Your task to perform on an android device: check google app version Image 0: 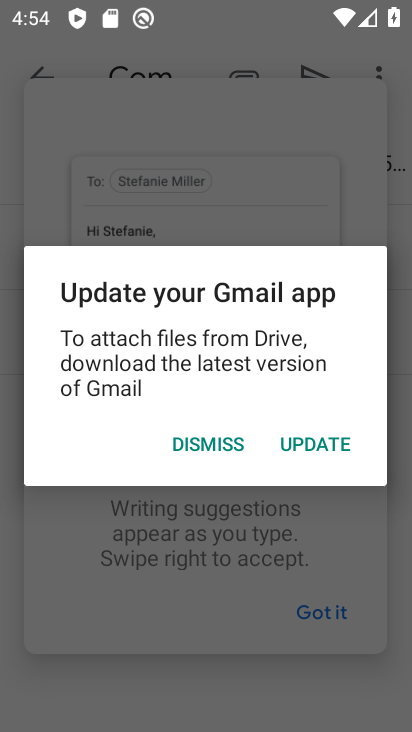
Step 0: press home button
Your task to perform on an android device: check google app version Image 1: 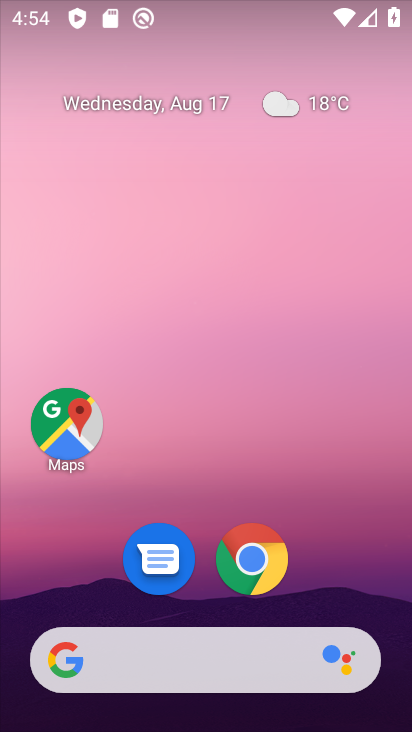
Step 1: drag from (222, 632) to (234, 196)
Your task to perform on an android device: check google app version Image 2: 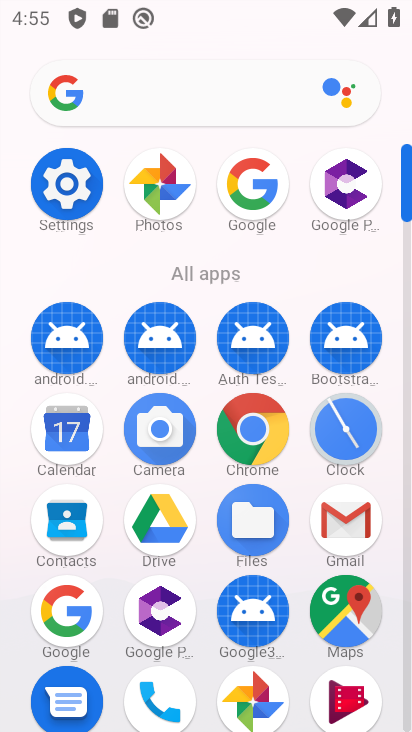
Step 2: click (80, 590)
Your task to perform on an android device: check google app version Image 3: 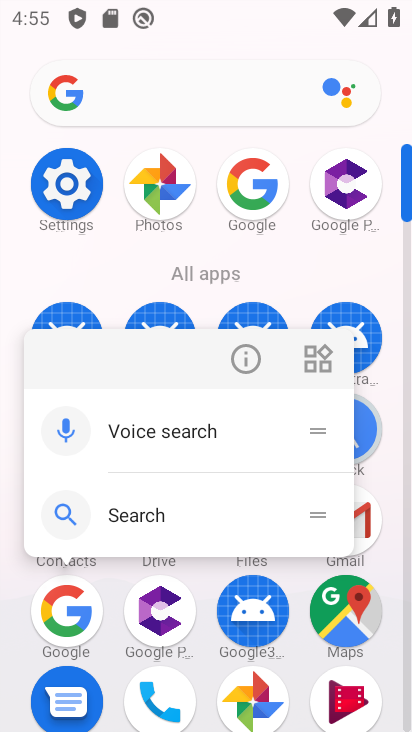
Step 3: click (240, 371)
Your task to perform on an android device: check google app version Image 4: 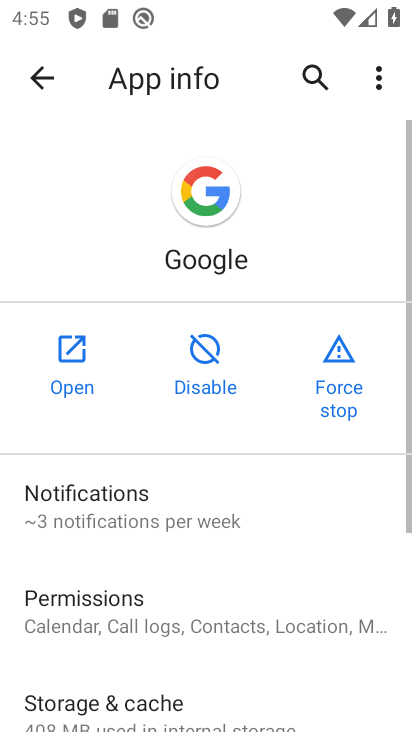
Step 4: drag from (261, 613) to (332, 116)
Your task to perform on an android device: check google app version Image 5: 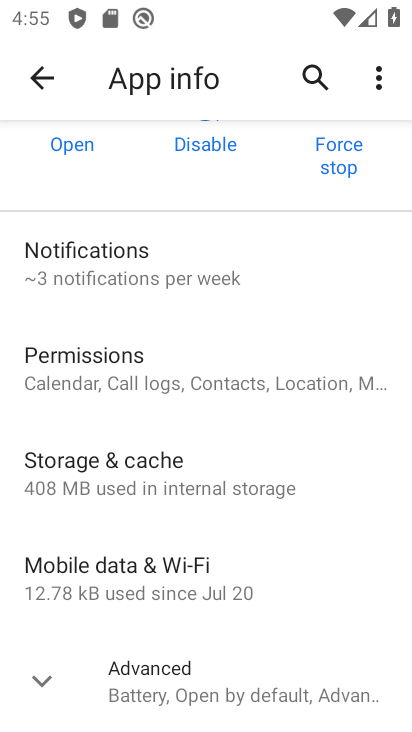
Step 5: click (228, 697)
Your task to perform on an android device: check google app version Image 6: 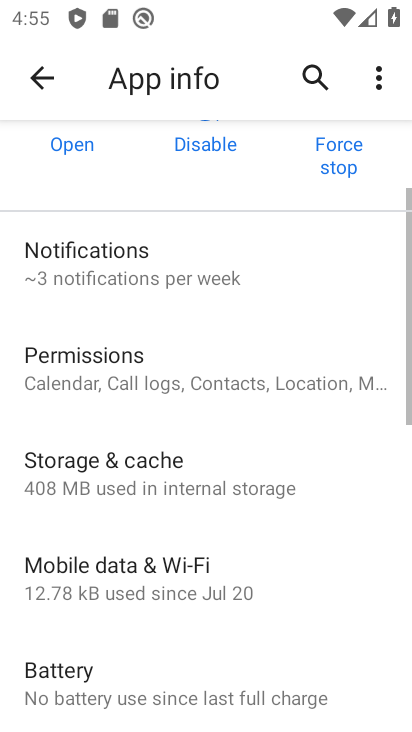
Step 6: task complete